Your task to perform on an android device: change text size in settings app Image 0: 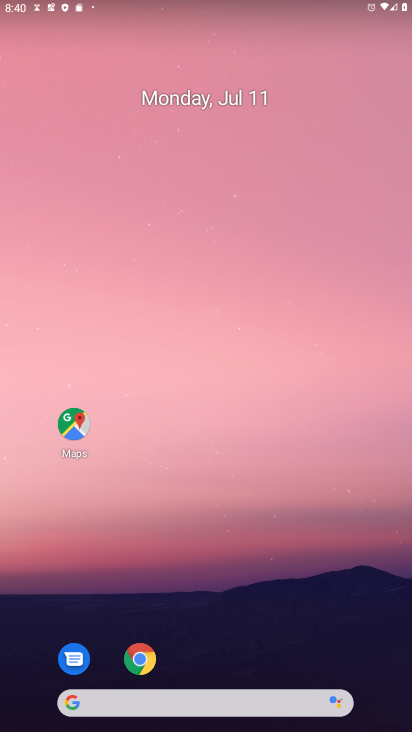
Step 0: drag from (202, 654) to (210, 13)
Your task to perform on an android device: change text size in settings app Image 1: 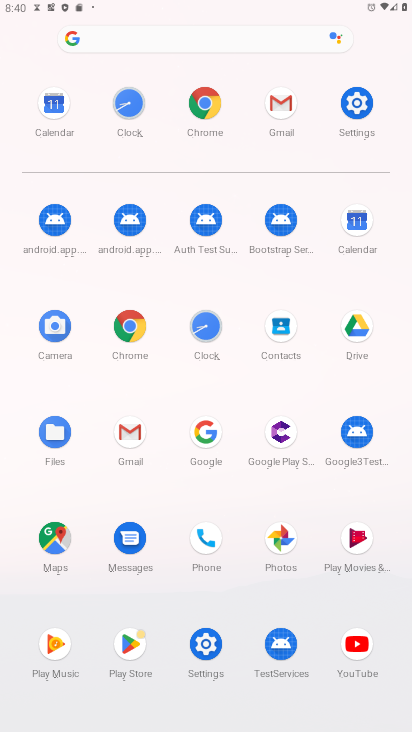
Step 1: click (358, 111)
Your task to perform on an android device: change text size in settings app Image 2: 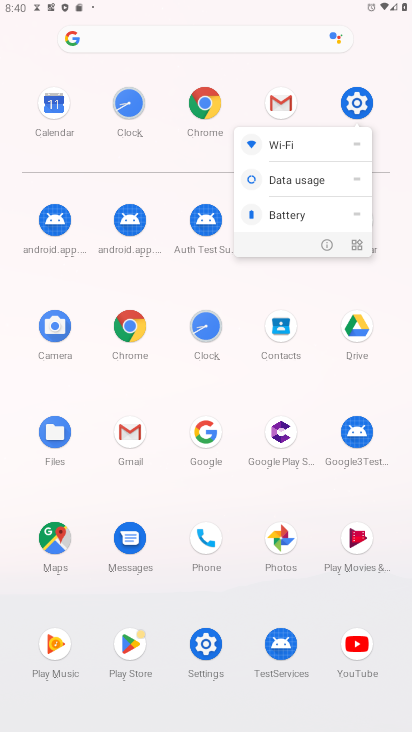
Step 2: click (324, 239)
Your task to perform on an android device: change text size in settings app Image 3: 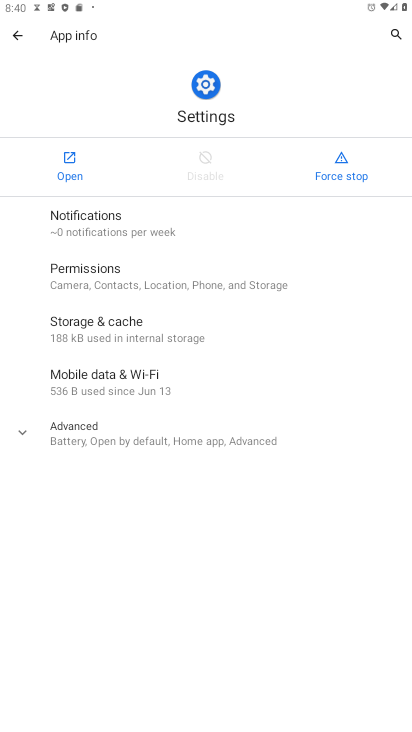
Step 3: click (68, 150)
Your task to perform on an android device: change text size in settings app Image 4: 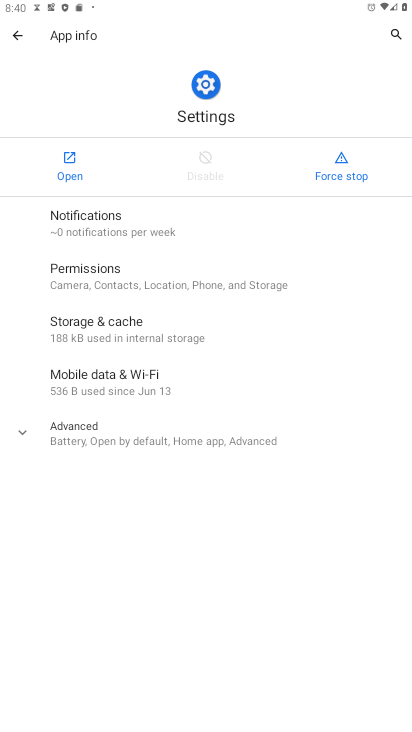
Step 4: click (66, 149)
Your task to perform on an android device: change text size in settings app Image 5: 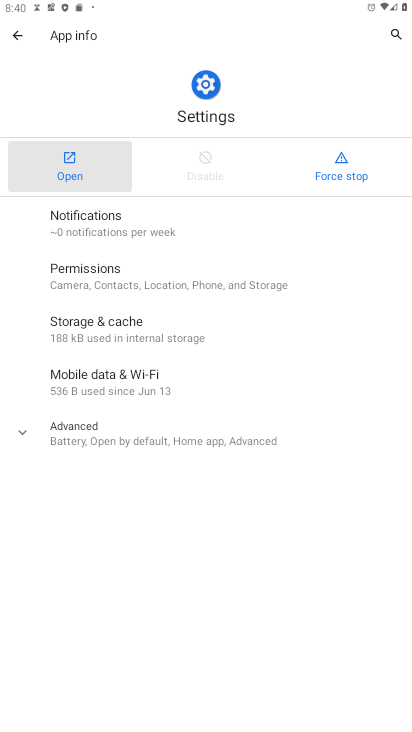
Step 5: click (66, 149)
Your task to perform on an android device: change text size in settings app Image 6: 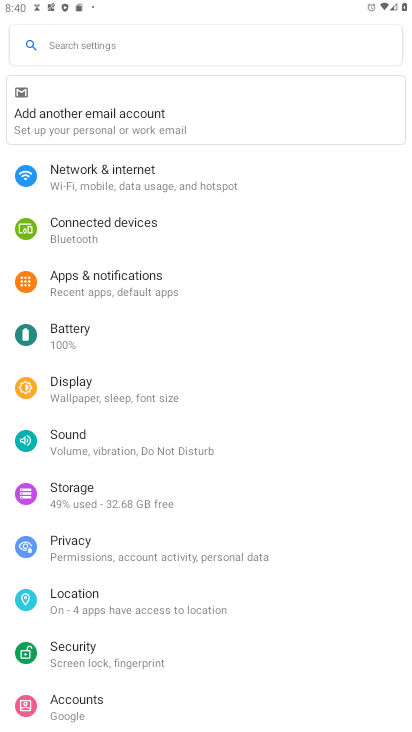
Step 6: click (82, 385)
Your task to perform on an android device: change text size in settings app Image 7: 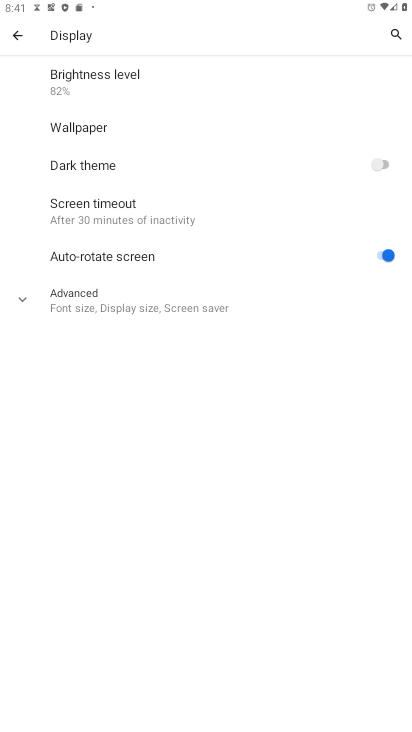
Step 7: click (111, 287)
Your task to perform on an android device: change text size in settings app Image 8: 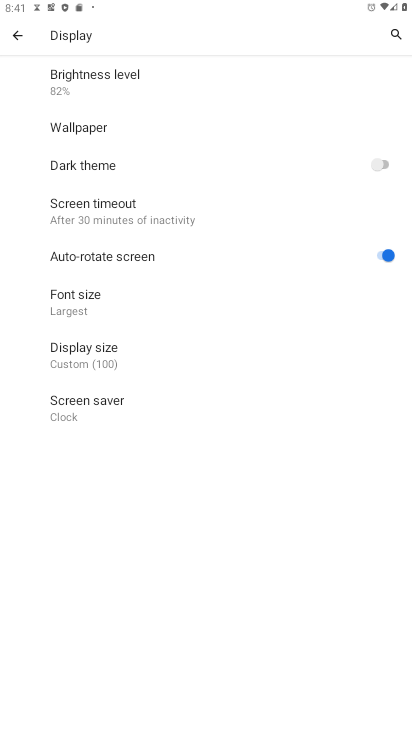
Step 8: click (119, 311)
Your task to perform on an android device: change text size in settings app Image 9: 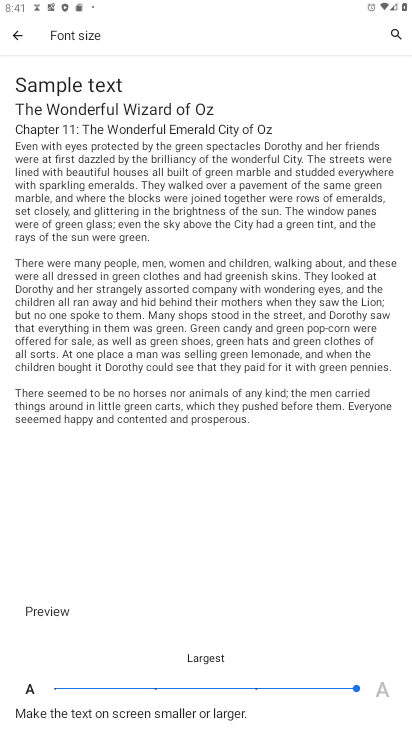
Step 9: task complete